Your task to perform on an android device: turn on notifications settings in the gmail app Image 0: 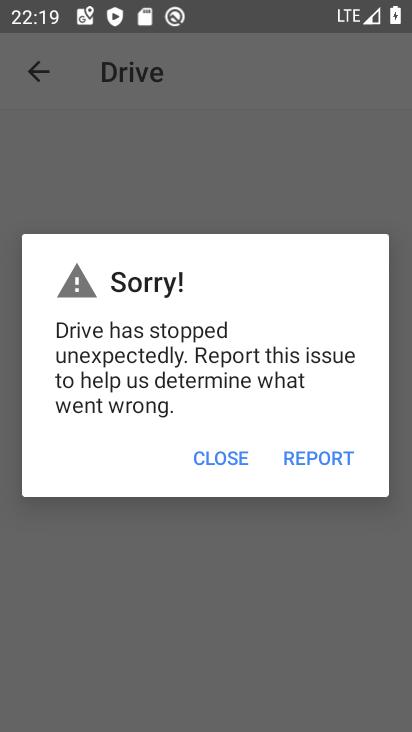
Step 0: press home button
Your task to perform on an android device: turn on notifications settings in the gmail app Image 1: 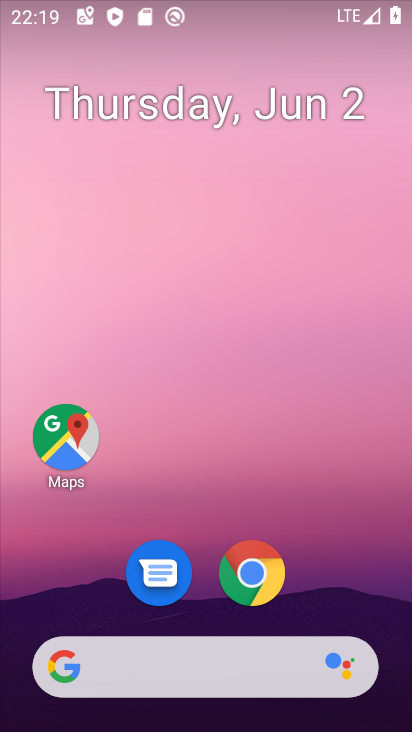
Step 1: drag from (328, 570) to (408, 73)
Your task to perform on an android device: turn on notifications settings in the gmail app Image 2: 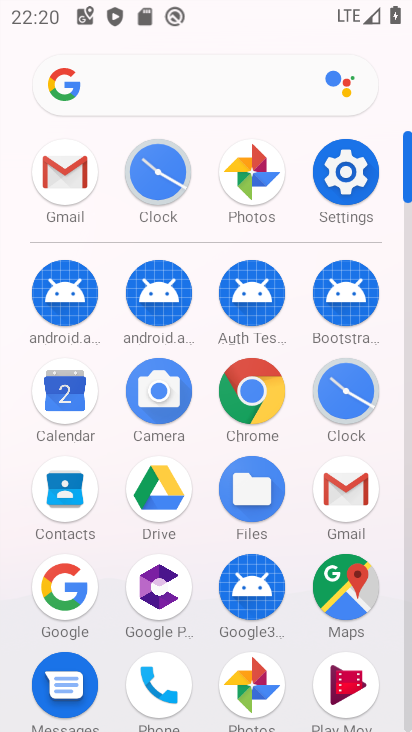
Step 2: click (64, 190)
Your task to perform on an android device: turn on notifications settings in the gmail app Image 3: 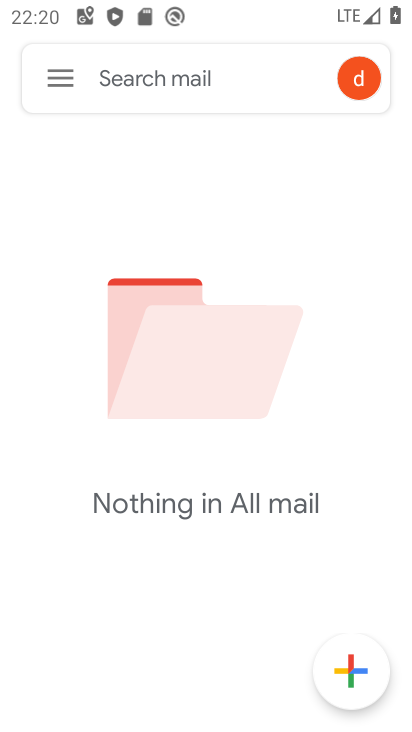
Step 3: click (62, 87)
Your task to perform on an android device: turn on notifications settings in the gmail app Image 4: 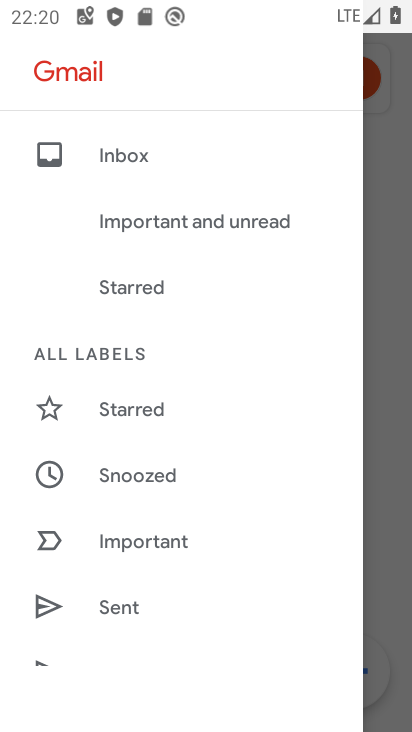
Step 4: drag from (201, 590) to (245, 134)
Your task to perform on an android device: turn on notifications settings in the gmail app Image 5: 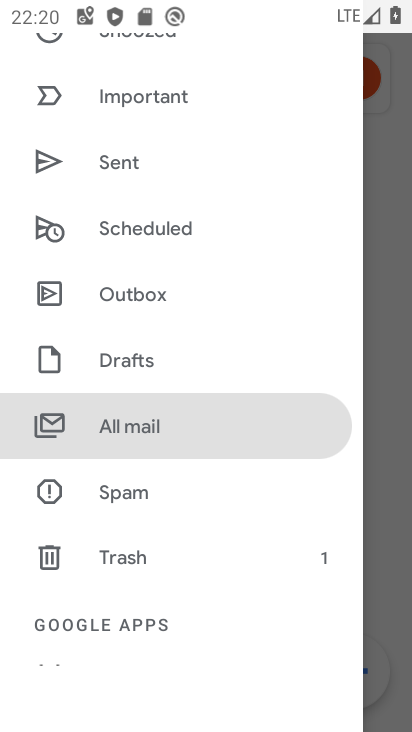
Step 5: drag from (235, 576) to (253, 161)
Your task to perform on an android device: turn on notifications settings in the gmail app Image 6: 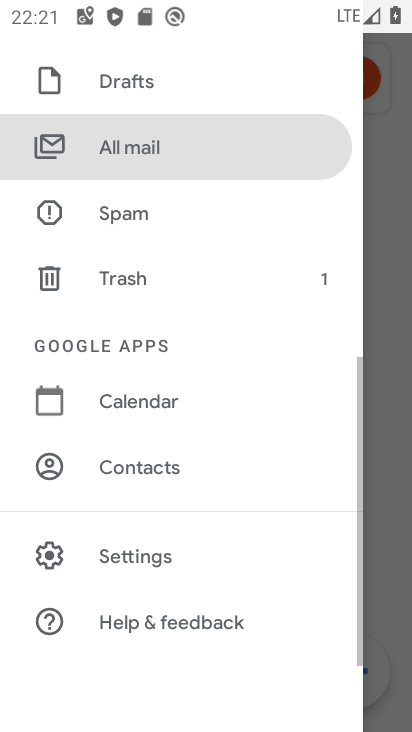
Step 6: click (149, 556)
Your task to perform on an android device: turn on notifications settings in the gmail app Image 7: 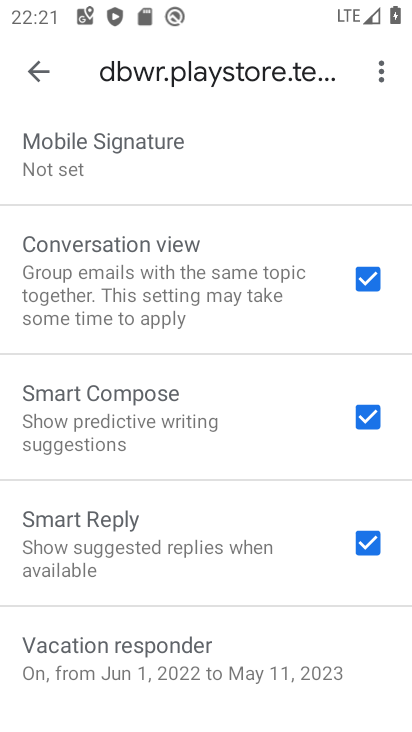
Step 7: drag from (216, 506) to (216, 546)
Your task to perform on an android device: turn on notifications settings in the gmail app Image 8: 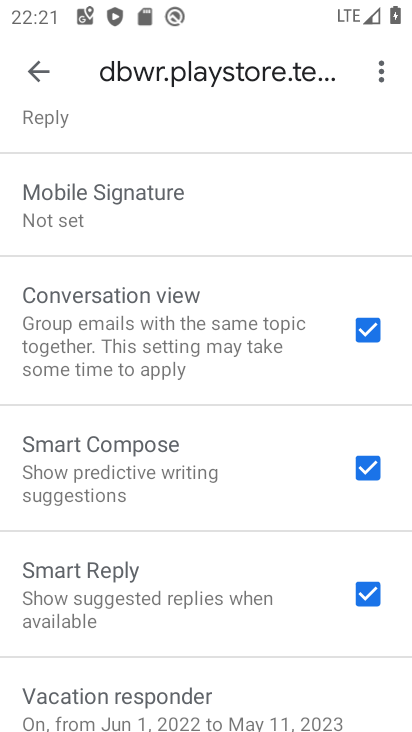
Step 8: drag from (204, 181) to (248, 464)
Your task to perform on an android device: turn on notifications settings in the gmail app Image 9: 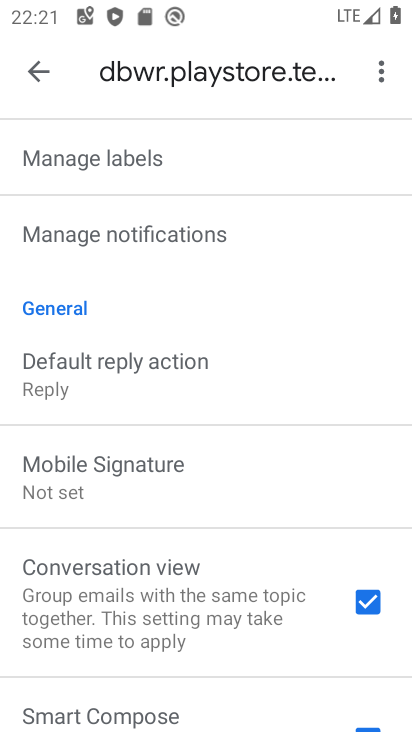
Step 9: click (201, 242)
Your task to perform on an android device: turn on notifications settings in the gmail app Image 10: 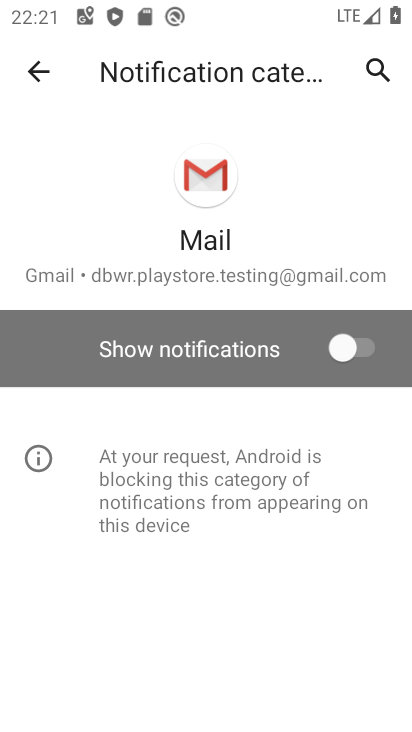
Step 10: click (356, 350)
Your task to perform on an android device: turn on notifications settings in the gmail app Image 11: 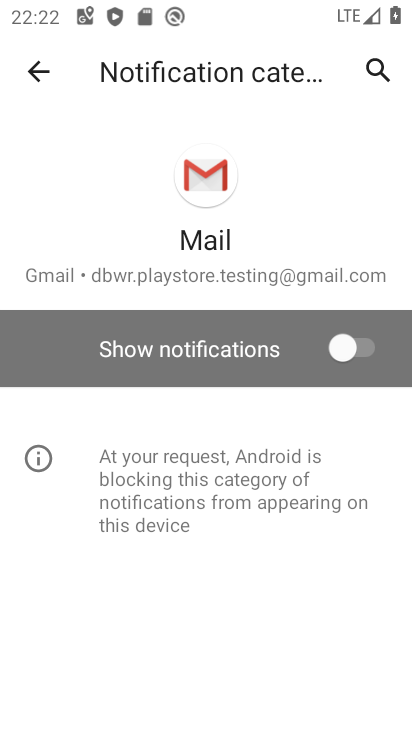
Step 11: click (367, 352)
Your task to perform on an android device: turn on notifications settings in the gmail app Image 12: 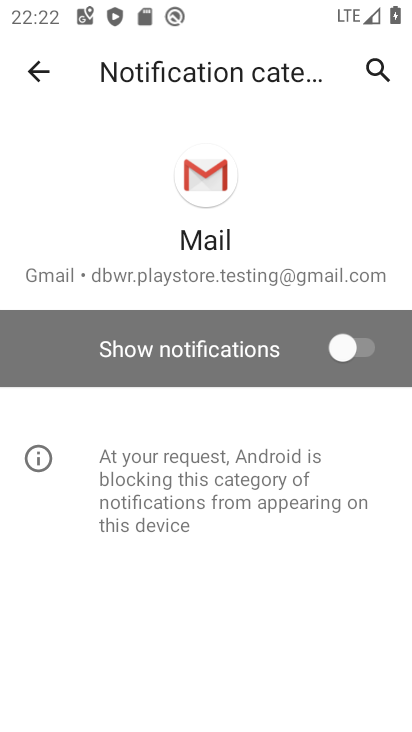
Step 12: click (50, 70)
Your task to perform on an android device: turn on notifications settings in the gmail app Image 13: 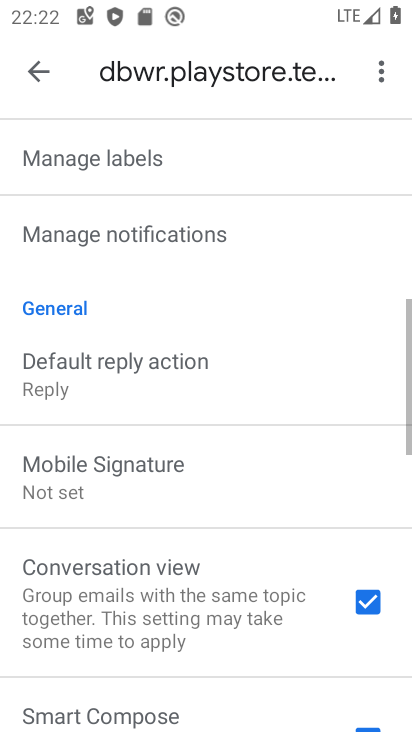
Step 13: click (50, 70)
Your task to perform on an android device: turn on notifications settings in the gmail app Image 14: 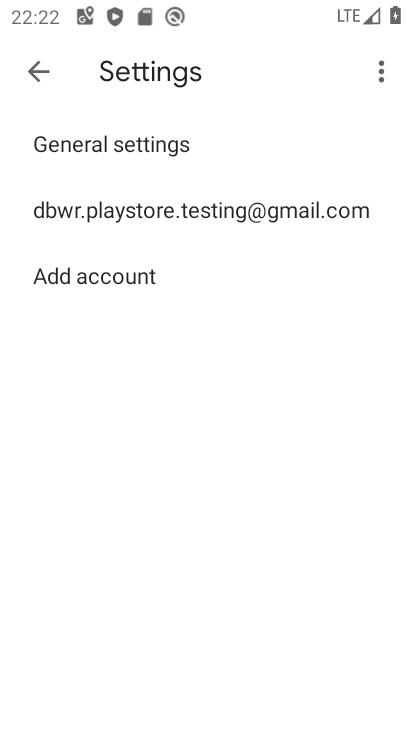
Step 14: click (136, 146)
Your task to perform on an android device: turn on notifications settings in the gmail app Image 15: 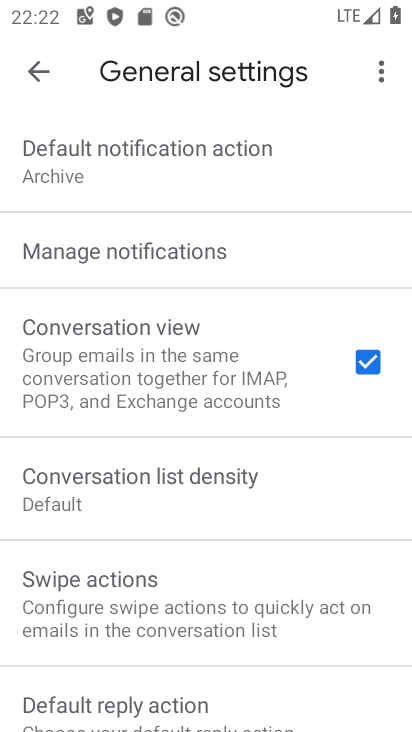
Step 15: click (172, 246)
Your task to perform on an android device: turn on notifications settings in the gmail app Image 16: 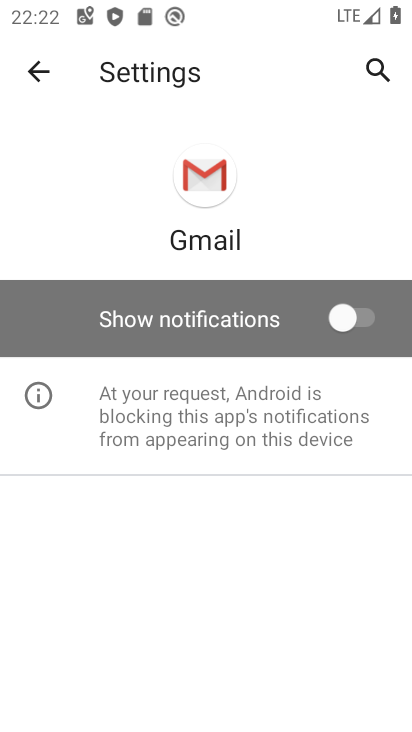
Step 16: click (364, 317)
Your task to perform on an android device: turn on notifications settings in the gmail app Image 17: 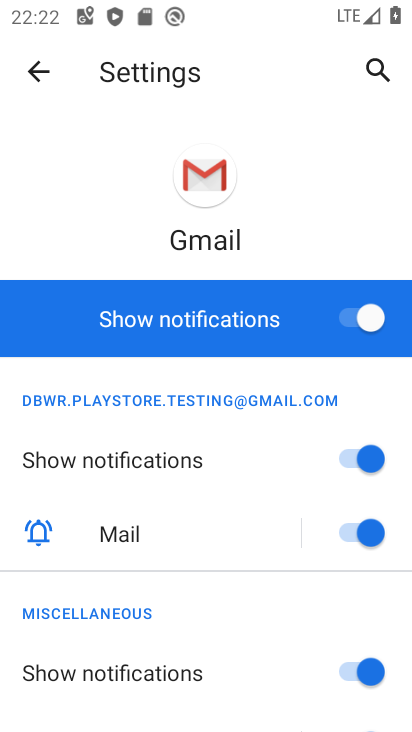
Step 17: task complete